Your task to perform on an android device: turn off priority inbox in the gmail app Image 0: 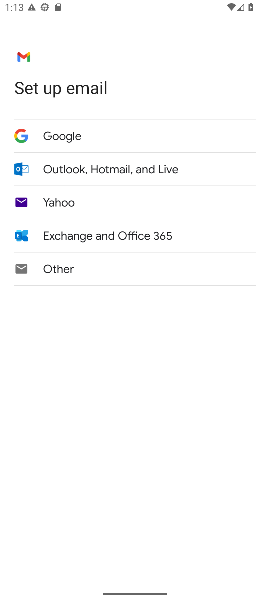
Step 0: press home button
Your task to perform on an android device: turn off priority inbox in the gmail app Image 1: 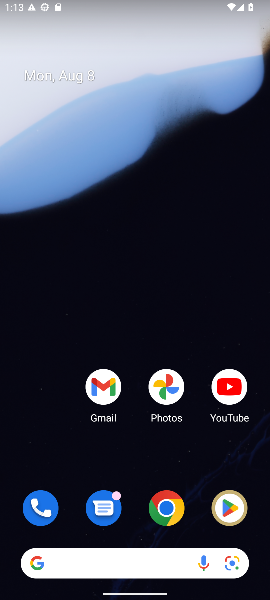
Step 1: click (102, 385)
Your task to perform on an android device: turn off priority inbox in the gmail app Image 2: 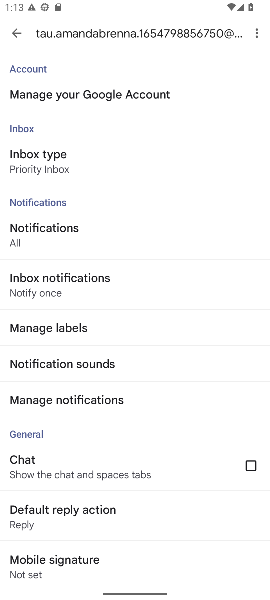
Step 2: click (51, 170)
Your task to perform on an android device: turn off priority inbox in the gmail app Image 3: 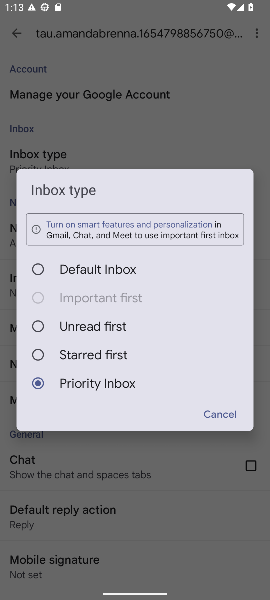
Step 3: click (35, 262)
Your task to perform on an android device: turn off priority inbox in the gmail app Image 4: 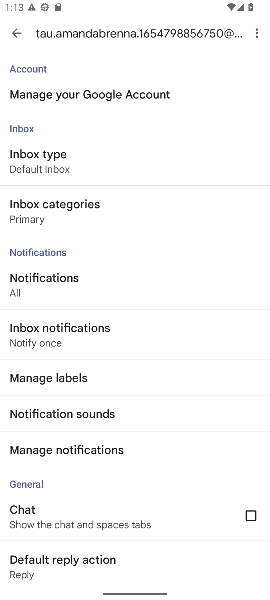
Step 4: task complete